Your task to perform on an android device: toggle javascript in the chrome app Image 0: 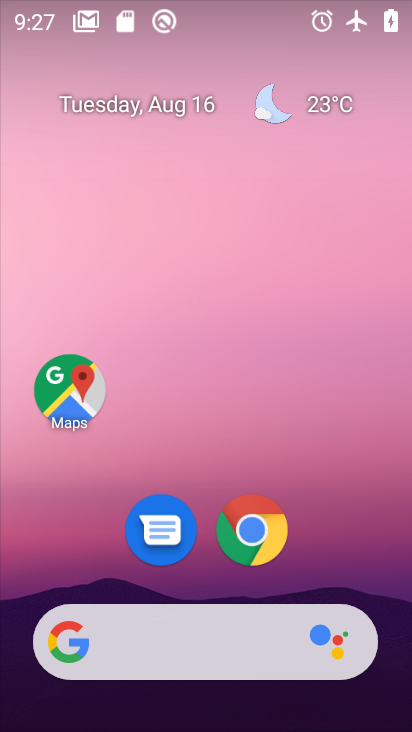
Step 0: drag from (349, 565) to (409, 301)
Your task to perform on an android device: toggle javascript in the chrome app Image 1: 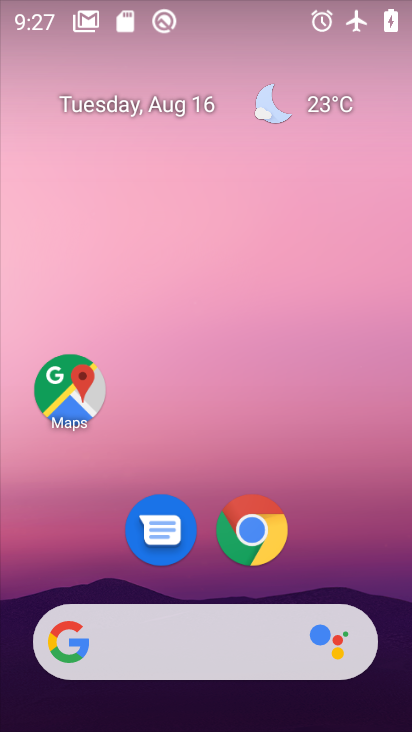
Step 1: drag from (341, 505) to (351, 101)
Your task to perform on an android device: toggle javascript in the chrome app Image 2: 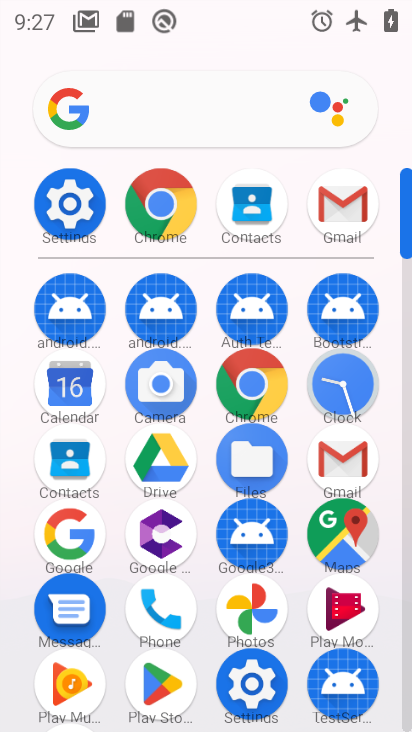
Step 2: click (251, 393)
Your task to perform on an android device: toggle javascript in the chrome app Image 3: 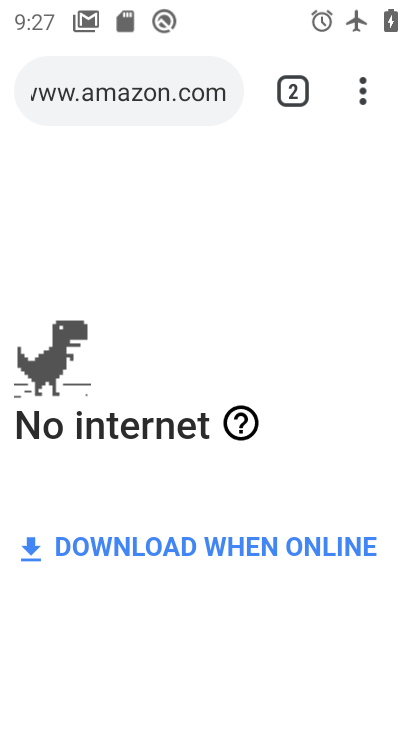
Step 3: drag from (360, 75) to (182, 549)
Your task to perform on an android device: toggle javascript in the chrome app Image 4: 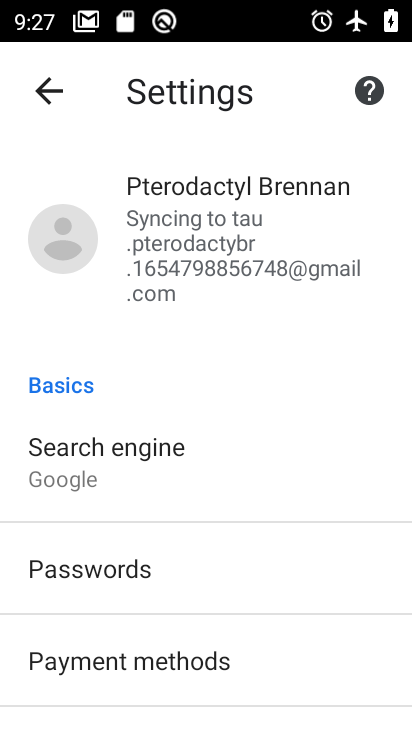
Step 4: drag from (278, 627) to (411, 297)
Your task to perform on an android device: toggle javascript in the chrome app Image 5: 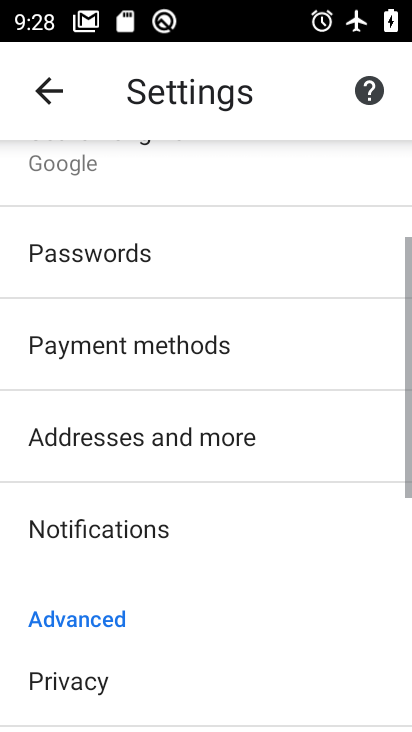
Step 5: drag from (206, 653) to (278, 321)
Your task to perform on an android device: toggle javascript in the chrome app Image 6: 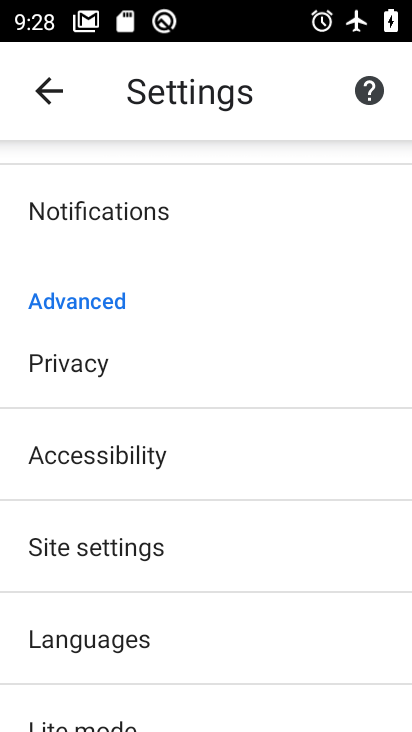
Step 6: click (81, 572)
Your task to perform on an android device: toggle javascript in the chrome app Image 7: 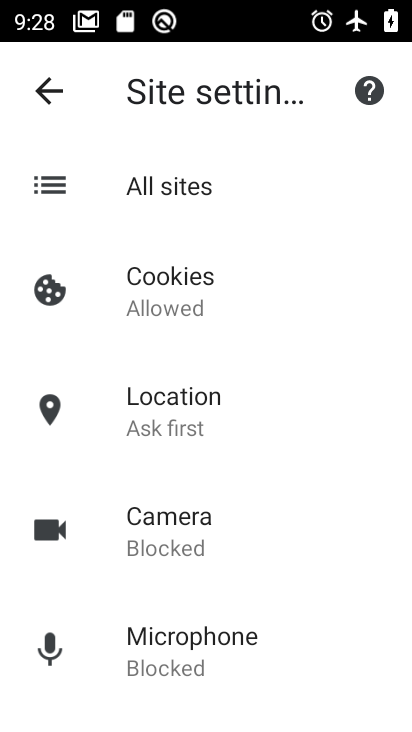
Step 7: drag from (261, 630) to (363, 194)
Your task to perform on an android device: toggle javascript in the chrome app Image 8: 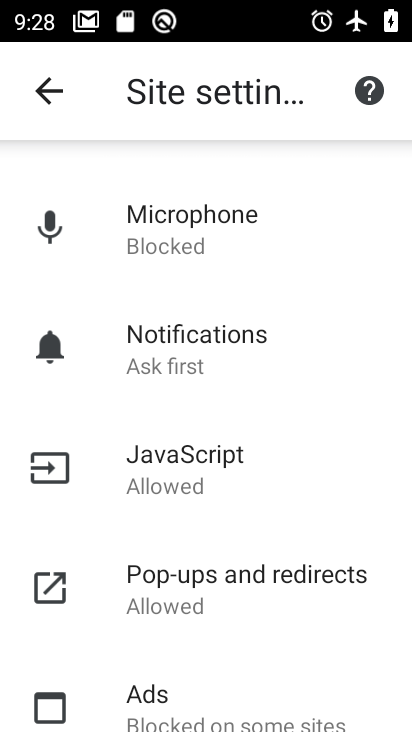
Step 8: click (199, 450)
Your task to perform on an android device: toggle javascript in the chrome app Image 9: 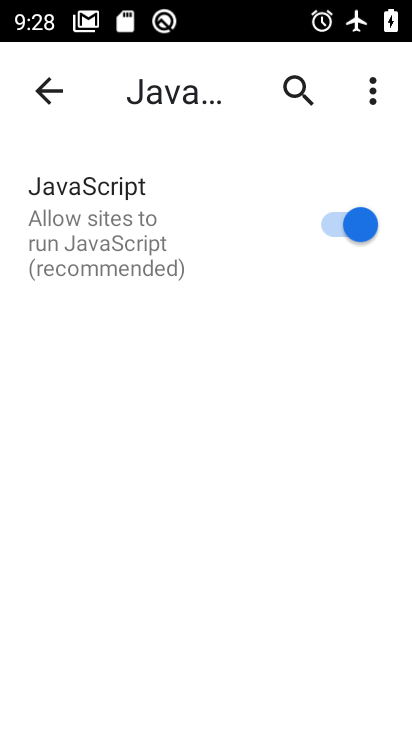
Step 9: click (376, 213)
Your task to perform on an android device: toggle javascript in the chrome app Image 10: 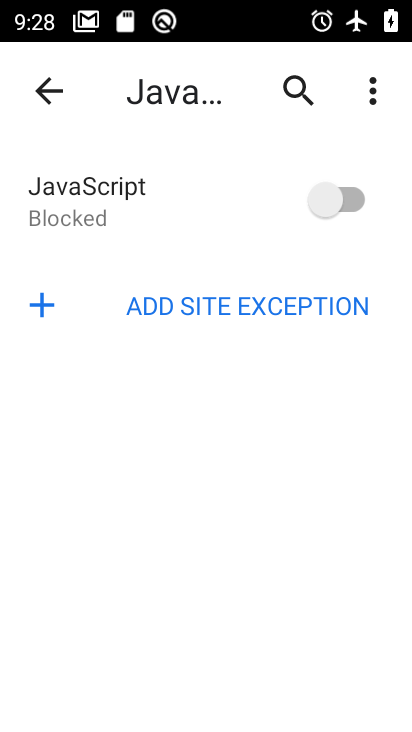
Step 10: task complete